Your task to perform on an android device: turn off location history Image 0: 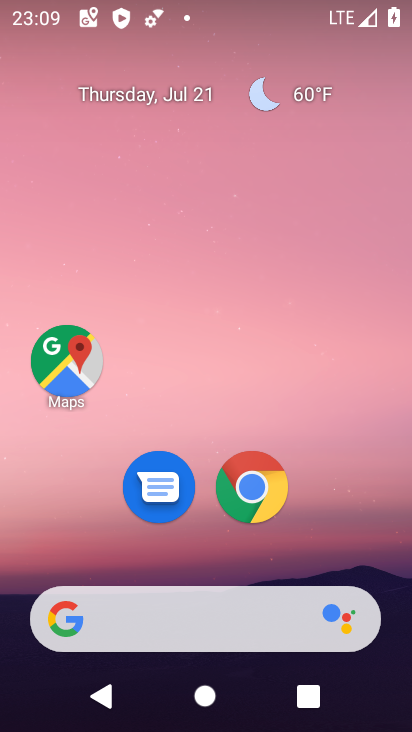
Step 0: drag from (178, 574) to (228, 41)
Your task to perform on an android device: turn off location history Image 1: 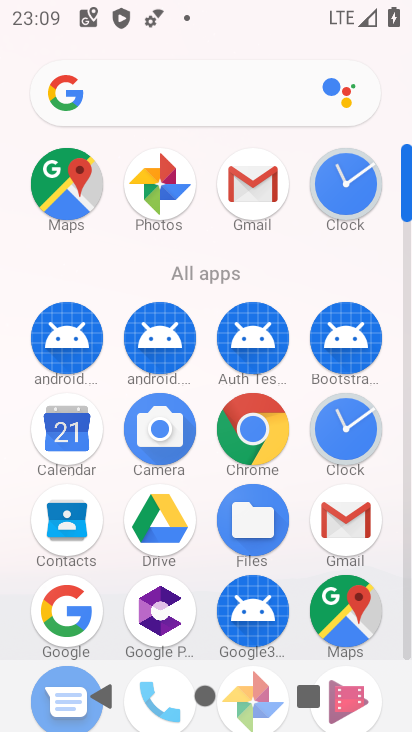
Step 1: drag from (166, 588) to (221, 132)
Your task to perform on an android device: turn off location history Image 2: 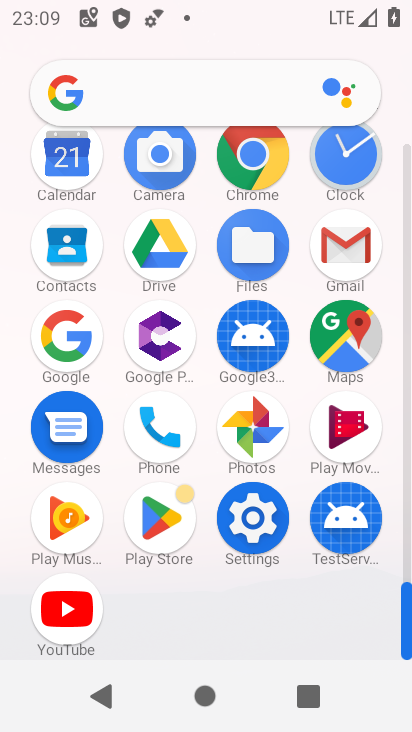
Step 2: click (256, 531)
Your task to perform on an android device: turn off location history Image 3: 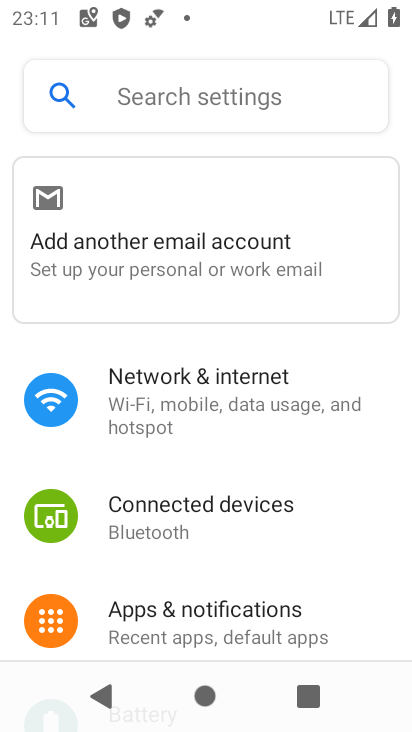
Step 3: drag from (205, 615) to (224, 169)
Your task to perform on an android device: turn off location history Image 4: 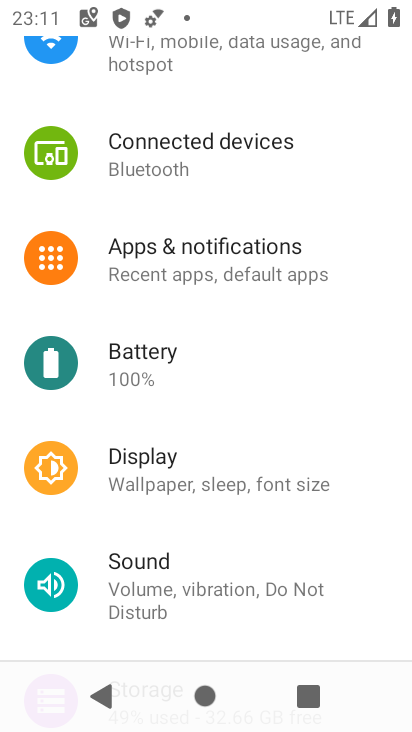
Step 4: drag from (197, 560) to (237, 163)
Your task to perform on an android device: turn off location history Image 5: 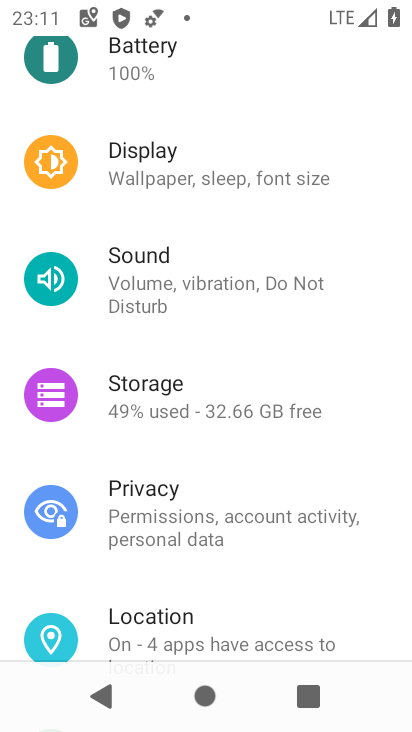
Step 5: click (181, 632)
Your task to perform on an android device: turn off location history Image 6: 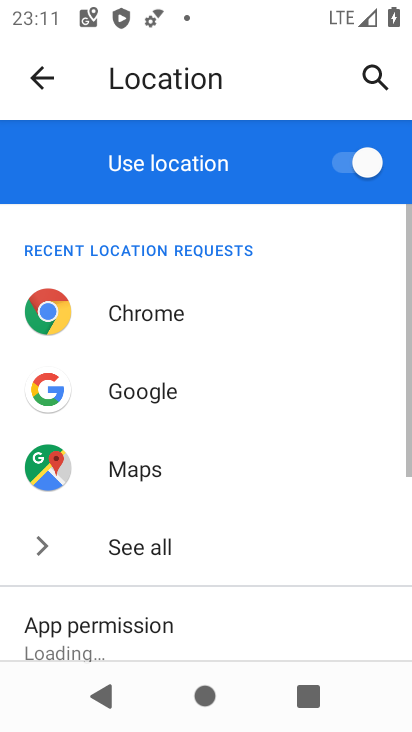
Step 6: drag from (153, 594) to (200, 24)
Your task to perform on an android device: turn off location history Image 7: 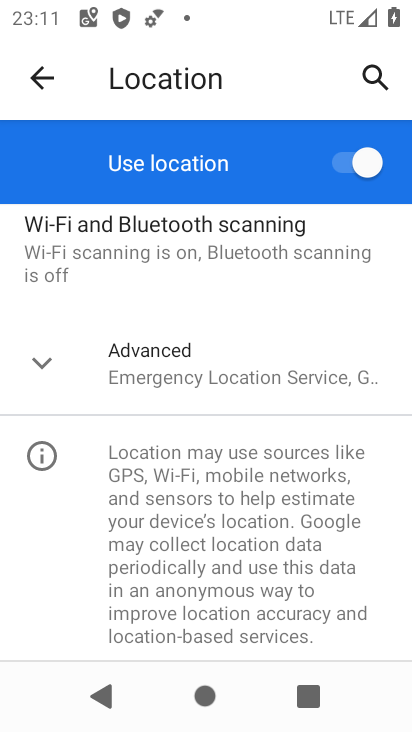
Step 7: click (175, 365)
Your task to perform on an android device: turn off location history Image 8: 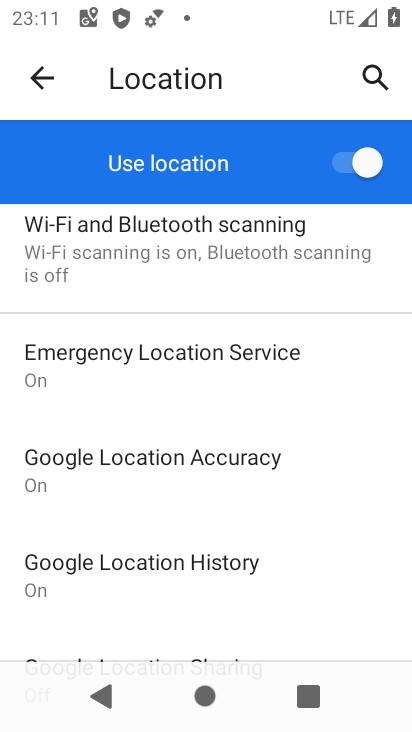
Step 8: click (77, 576)
Your task to perform on an android device: turn off location history Image 9: 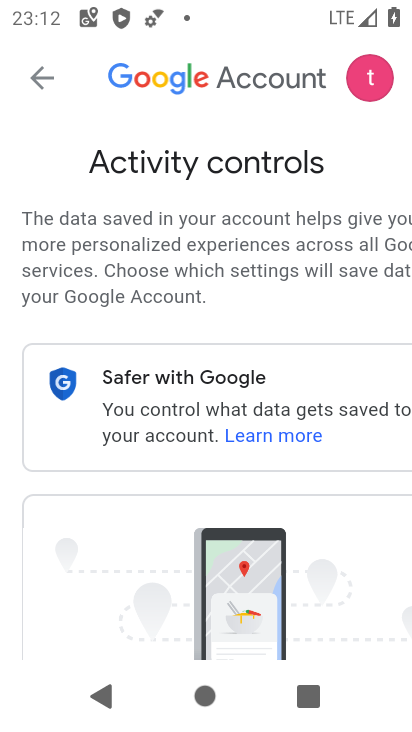
Step 9: drag from (167, 594) to (181, 29)
Your task to perform on an android device: turn off location history Image 10: 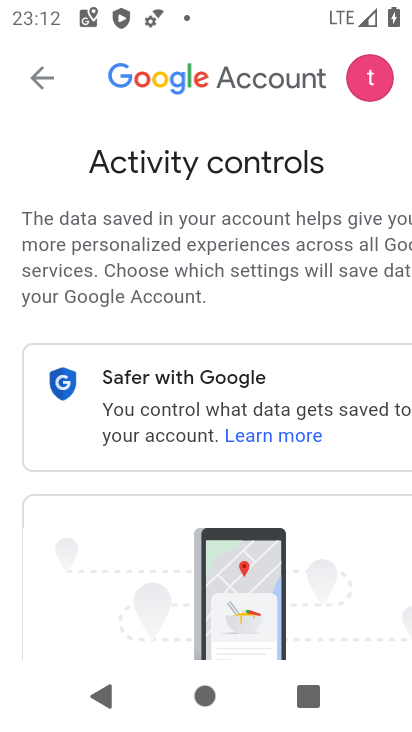
Step 10: drag from (241, 573) to (145, 49)
Your task to perform on an android device: turn off location history Image 11: 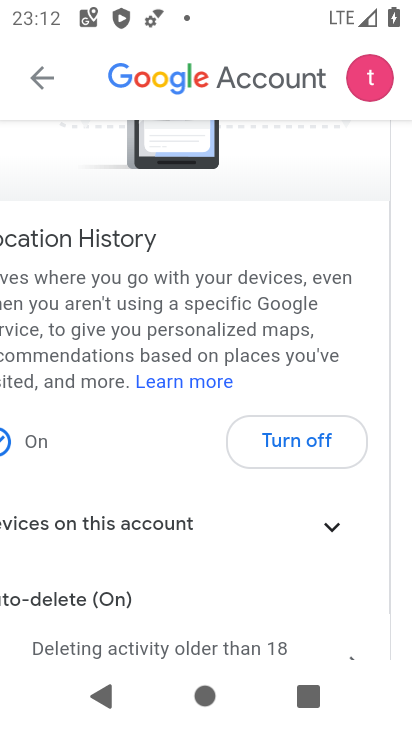
Step 11: click (307, 441)
Your task to perform on an android device: turn off location history Image 12: 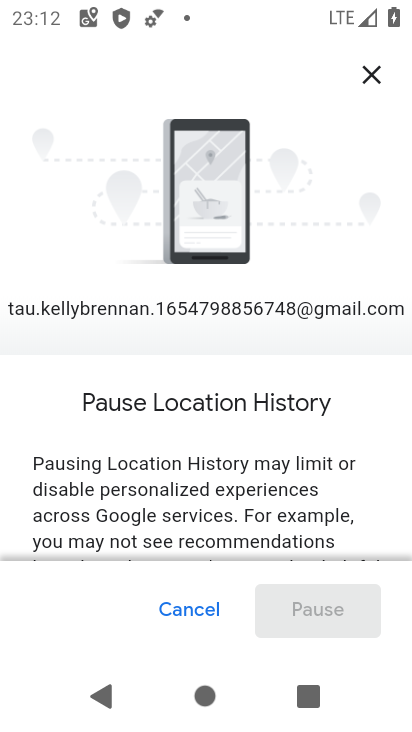
Step 12: drag from (191, 456) to (176, 4)
Your task to perform on an android device: turn off location history Image 13: 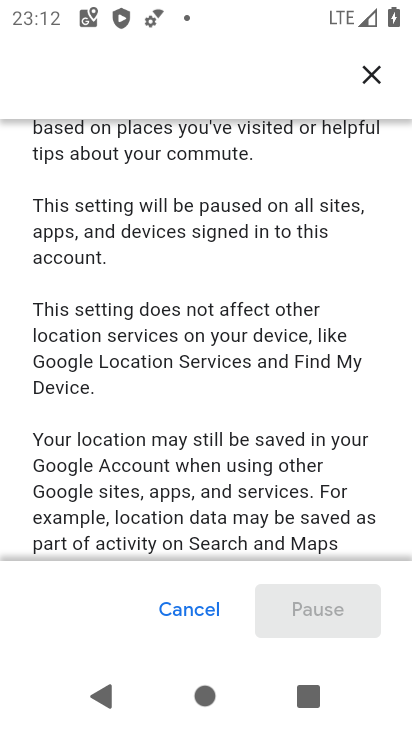
Step 13: drag from (246, 477) to (269, 48)
Your task to perform on an android device: turn off location history Image 14: 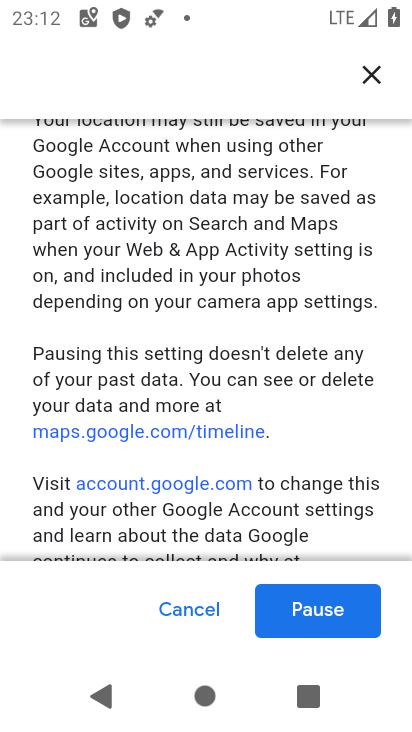
Step 14: click (297, 605)
Your task to perform on an android device: turn off location history Image 15: 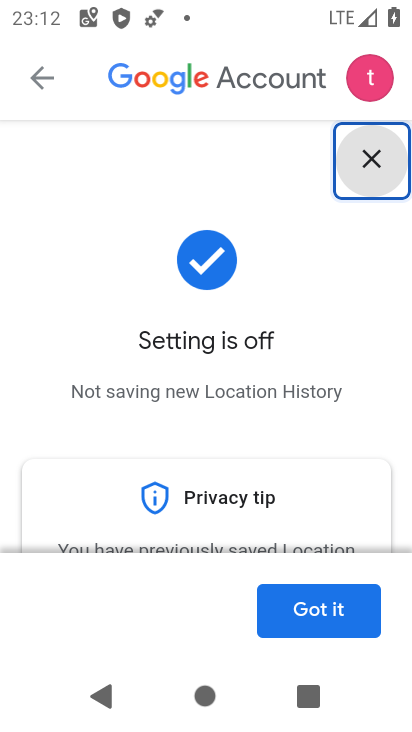
Step 15: task complete